Your task to perform on an android device: Open Chrome and go to settings Image 0: 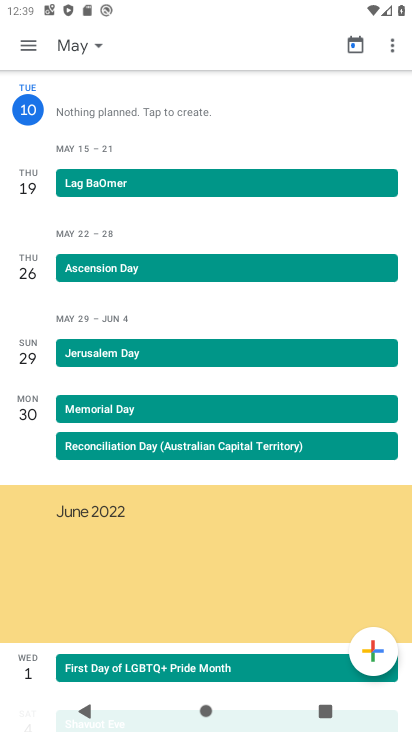
Step 0: press back button
Your task to perform on an android device: Open Chrome and go to settings Image 1: 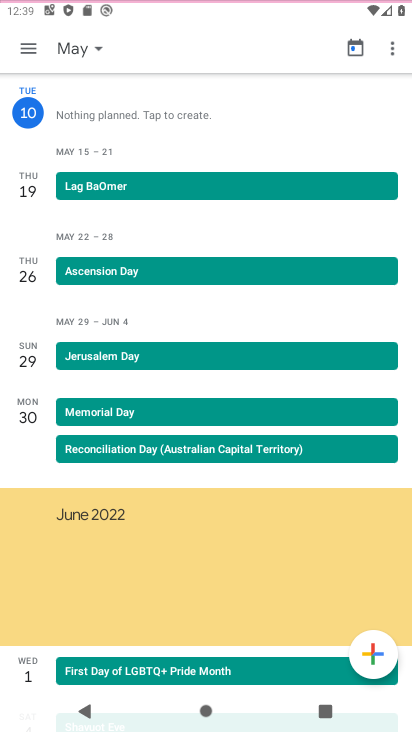
Step 1: press home button
Your task to perform on an android device: Open Chrome and go to settings Image 2: 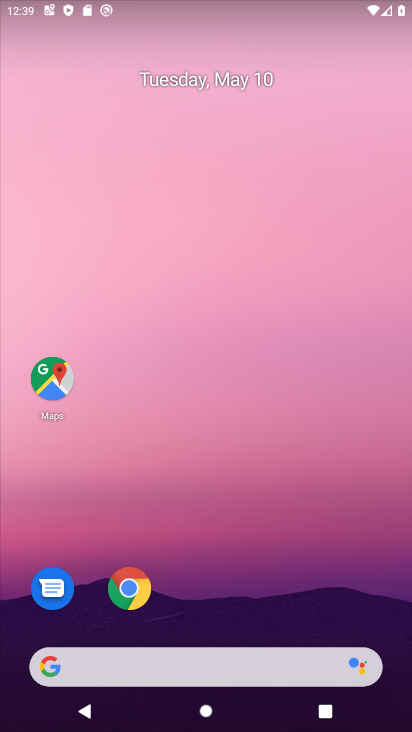
Step 2: click (146, 589)
Your task to perform on an android device: Open Chrome and go to settings Image 3: 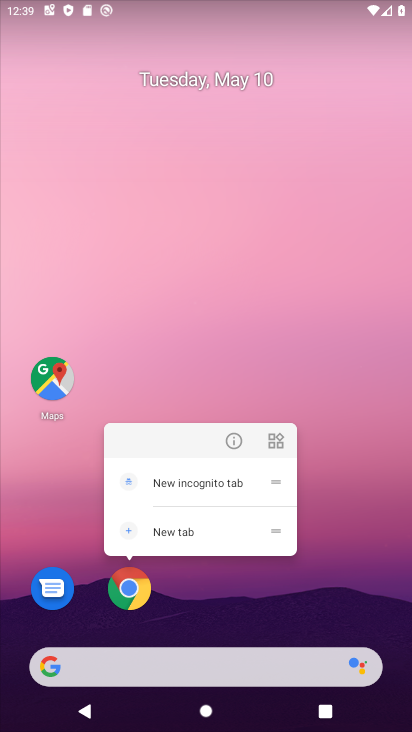
Step 3: click (136, 598)
Your task to perform on an android device: Open Chrome and go to settings Image 4: 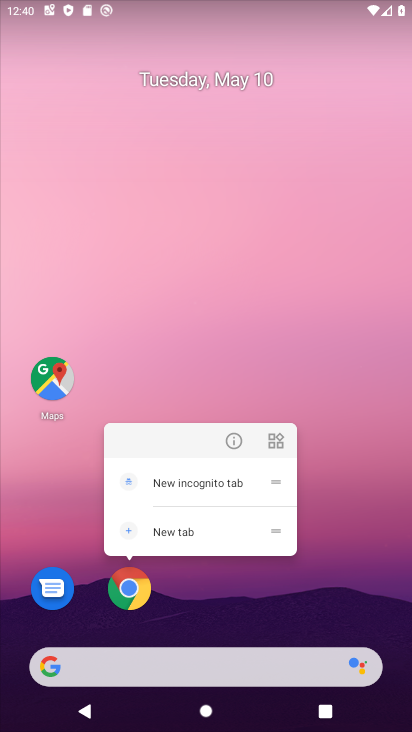
Step 4: click (140, 613)
Your task to perform on an android device: Open Chrome and go to settings Image 5: 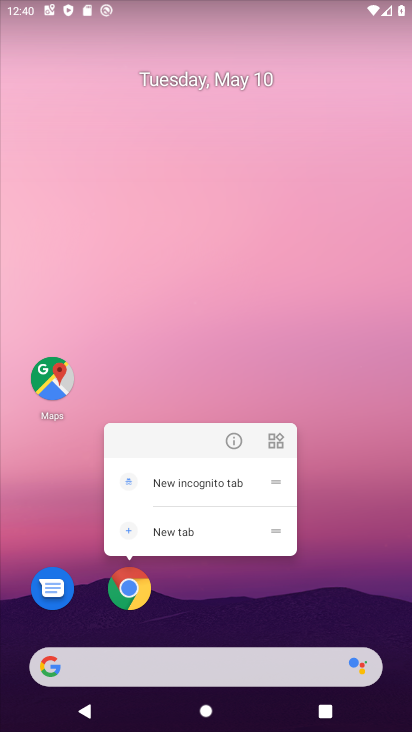
Step 5: click (138, 601)
Your task to perform on an android device: Open Chrome and go to settings Image 6: 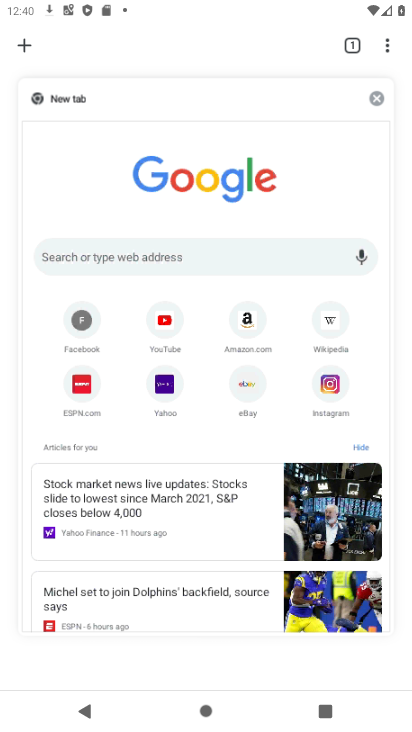
Step 6: task complete